Your task to perform on an android device: toggle priority inbox in the gmail app Image 0: 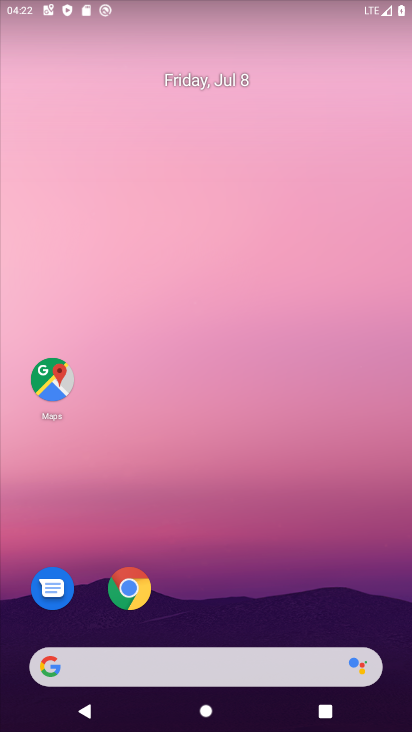
Step 0: drag from (200, 434) to (164, 2)
Your task to perform on an android device: toggle priority inbox in the gmail app Image 1: 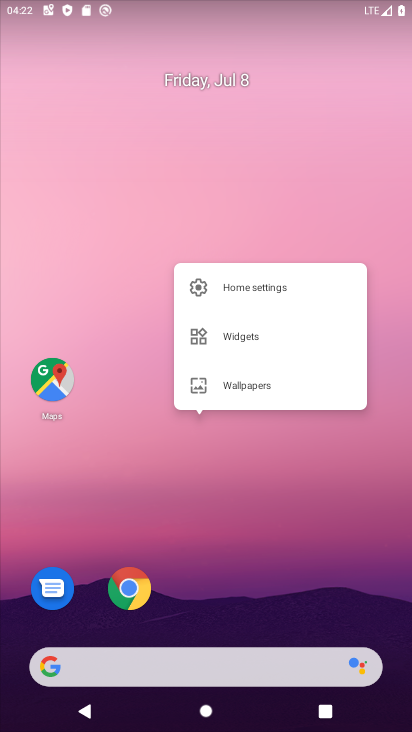
Step 1: click (224, 518)
Your task to perform on an android device: toggle priority inbox in the gmail app Image 2: 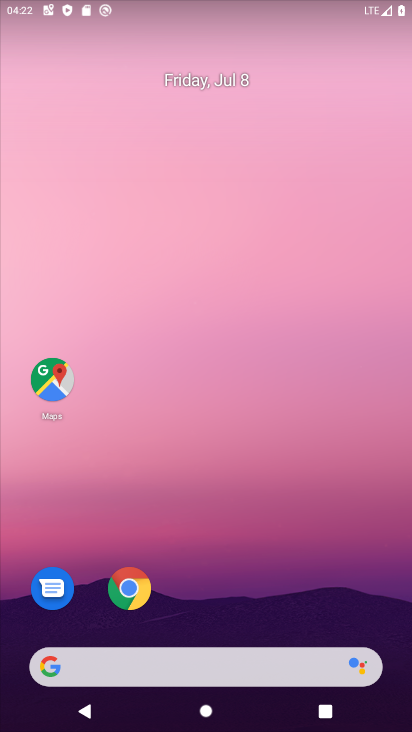
Step 2: drag from (224, 605) to (183, 63)
Your task to perform on an android device: toggle priority inbox in the gmail app Image 3: 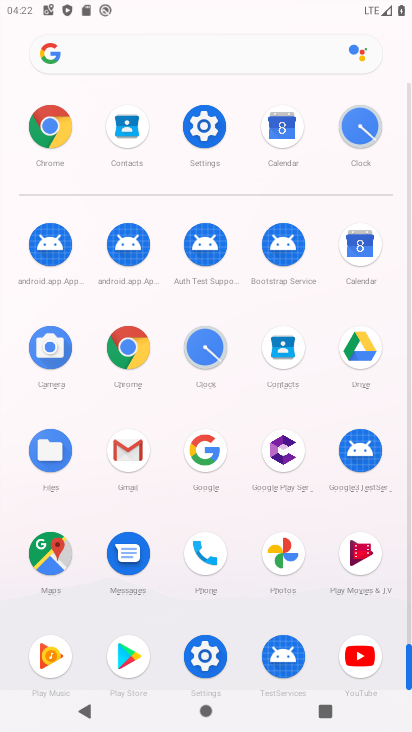
Step 3: drag from (173, 390) to (123, 470)
Your task to perform on an android device: toggle priority inbox in the gmail app Image 4: 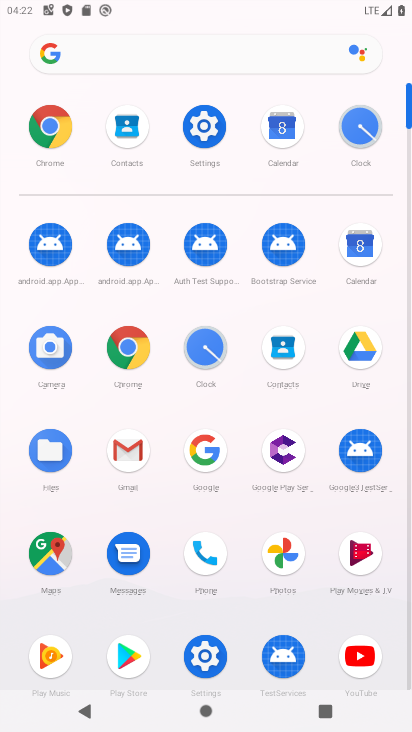
Step 4: click (123, 470)
Your task to perform on an android device: toggle priority inbox in the gmail app Image 5: 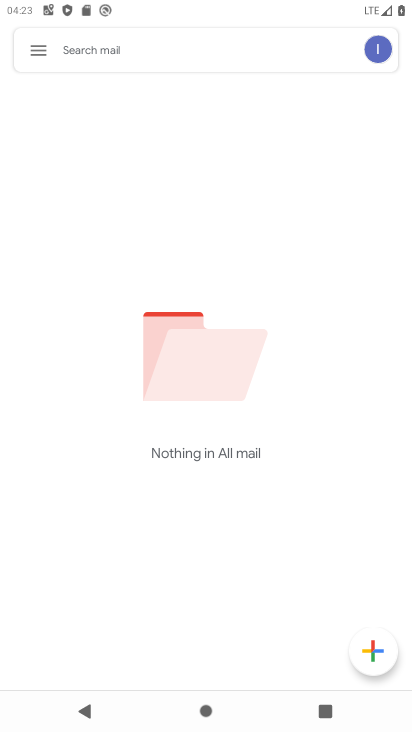
Step 5: click (43, 49)
Your task to perform on an android device: toggle priority inbox in the gmail app Image 6: 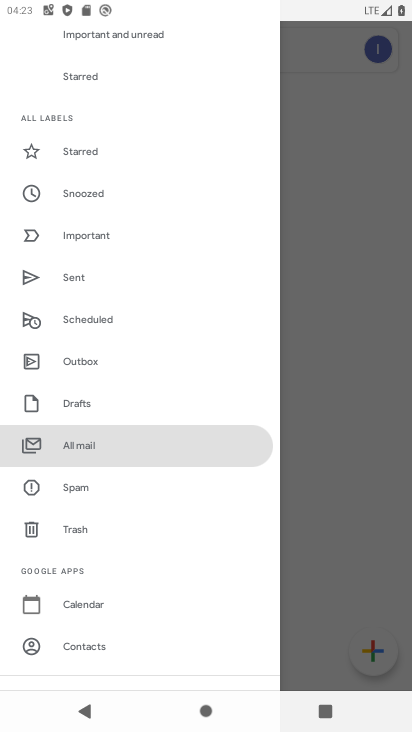
Step 6: drag from (105, 481) to (94, 299)
Your task to perform on an android device: toggle priority inbox in the gmail app Image 7: 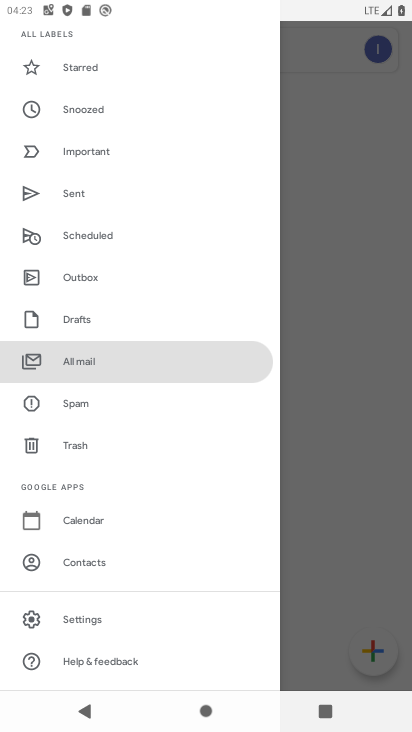
Step 7: click (85, 620)
Your task to perform on an android device: toggle priority inbox in the gmail app Image 8: 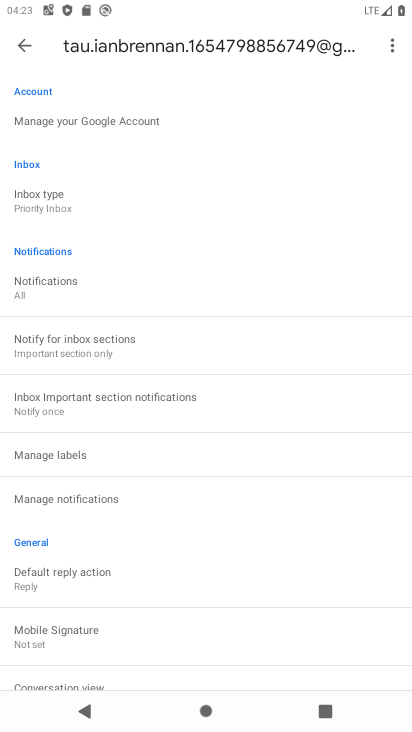
Step 8: click (61, 196)
Your task to perform on an android device: toggle priority inbox in the gmail app Image 9: 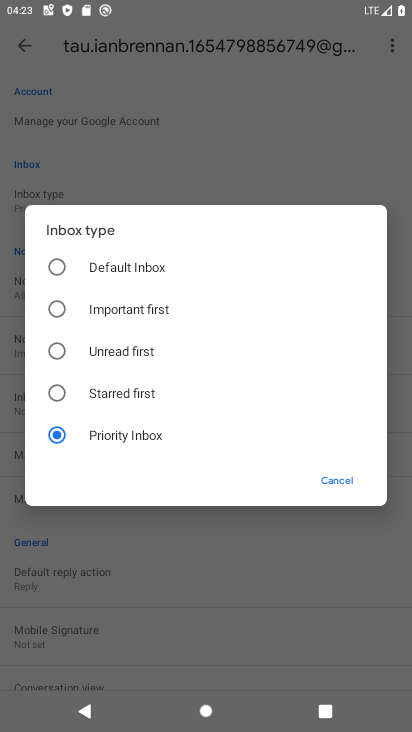
Step 9: click (56, 265)
Your task to perform on an android device: toggle priority inbox in the gmail app Image 10: 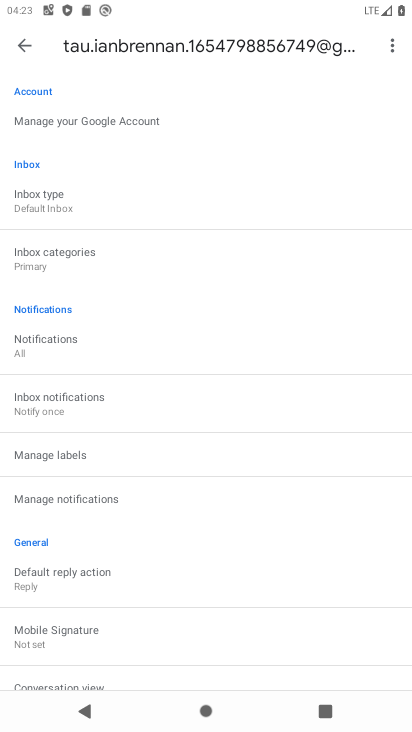
Step 10: task complete